Your task to perform on an android device: toggle show notifications on the lock screen Image 0: 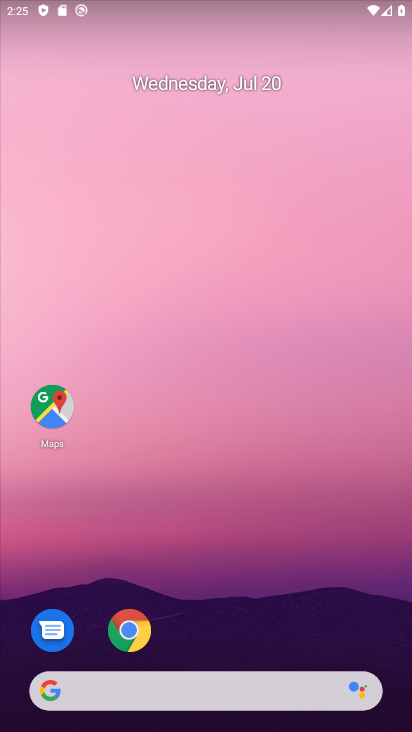
Step 0: drag from (300, 639) to (277, 124)
Your task to perform on an android device: toggle show notifications on the lock screen Image 1: 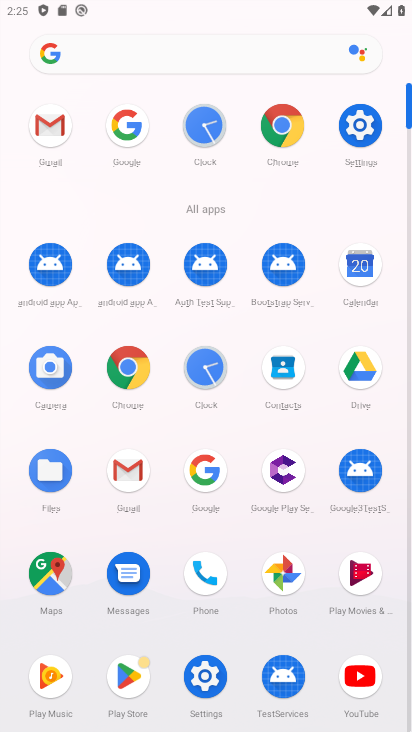
Step 1: click (349, 147)
Your task to perform on an android device: toggle show notifications on the lock screen Image 2: 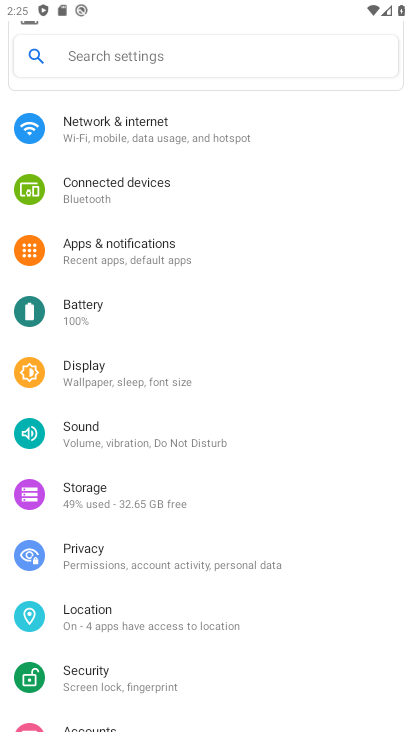
Step 2: click (268, 258)
Your task to perform on an android device: toggle show notifications on the lock screen Image 3: 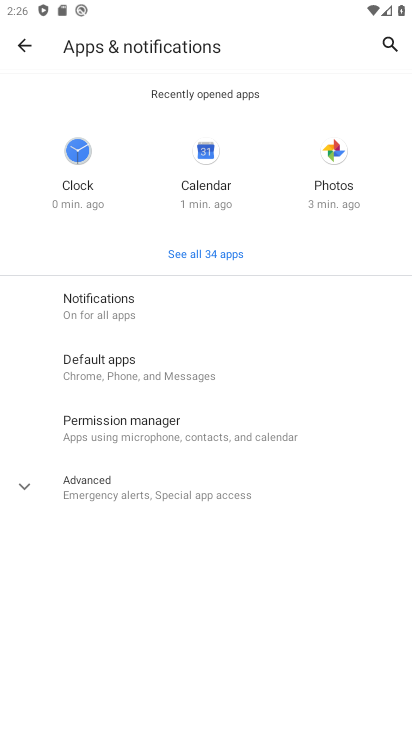
Step 3: click (127, 302)
Your task to perform on an android device: toggle show notifications on the lock screen Image 4: 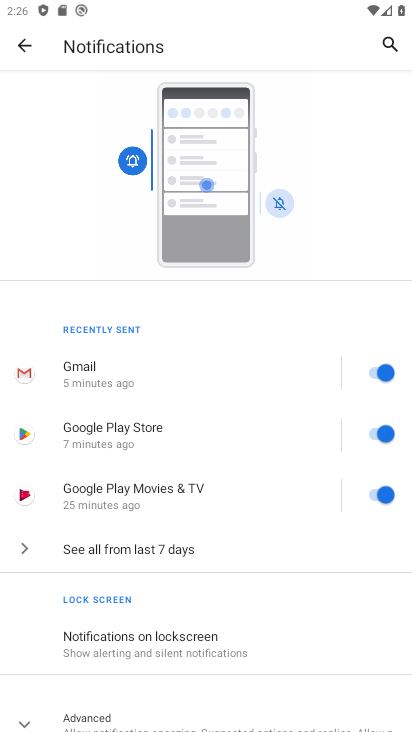
Step 4: click (140, 642)
Your task to perform on an android device: toggle show notifications on the lock screen Image 5: 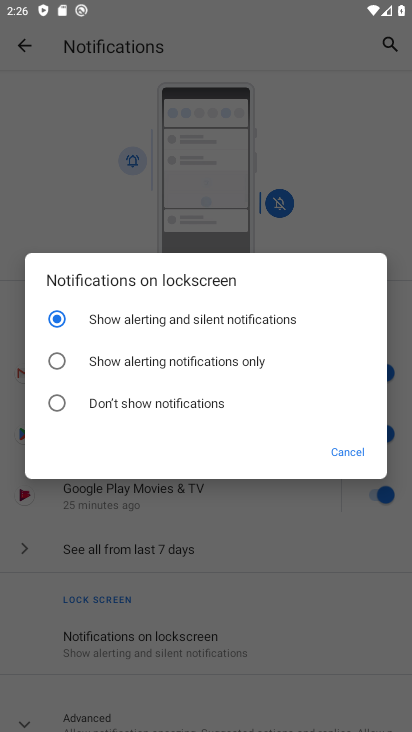
Step 5: click (258, 372)
Your task to perform on an android device: toggle show notifications on the lock screen Image 6: 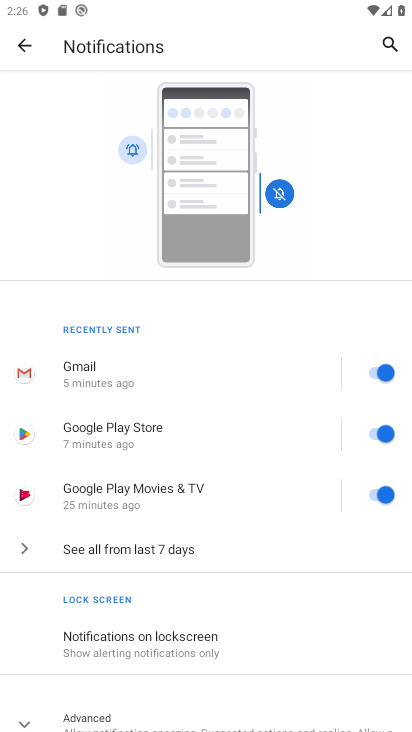
Step 6: task complete